Your task to perform on an android device: show emergency info Image 0: 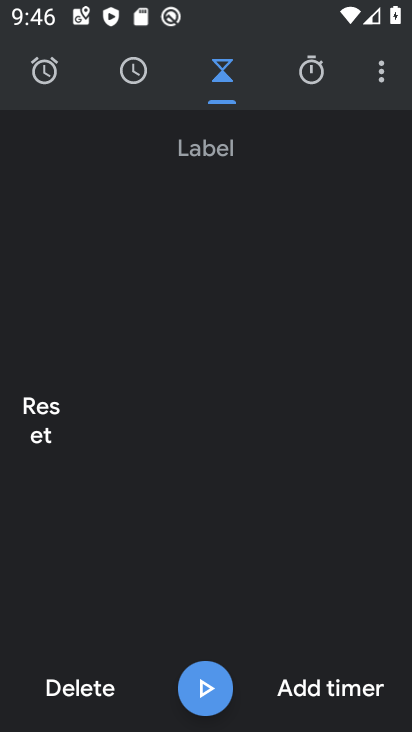
Step 0: press home button
Your task to perform on an android device: show emergency info Image 1: 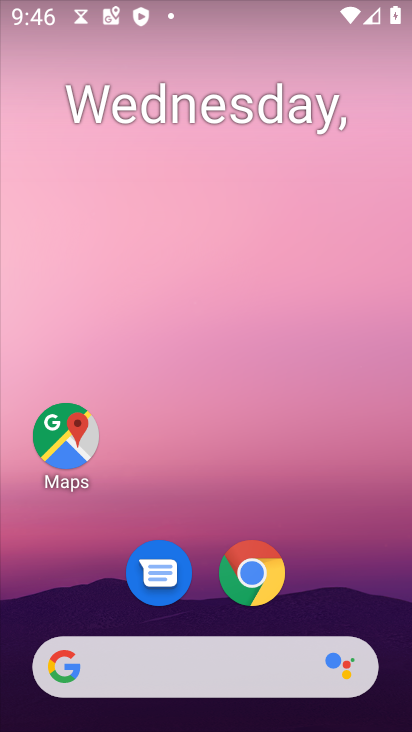
Step 1: drag from (381, 583) to (331, 184)
Your task to perform on an android device: show emergency info Image 2: 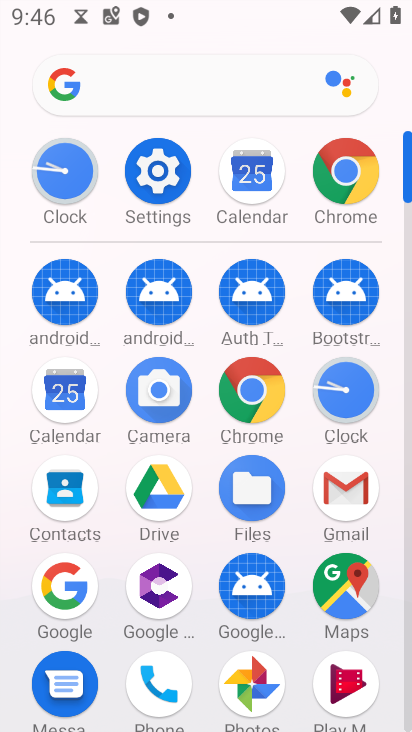
Step 2: click (181, 167)
Your task to perform on an android device: show emergency info Image 3: 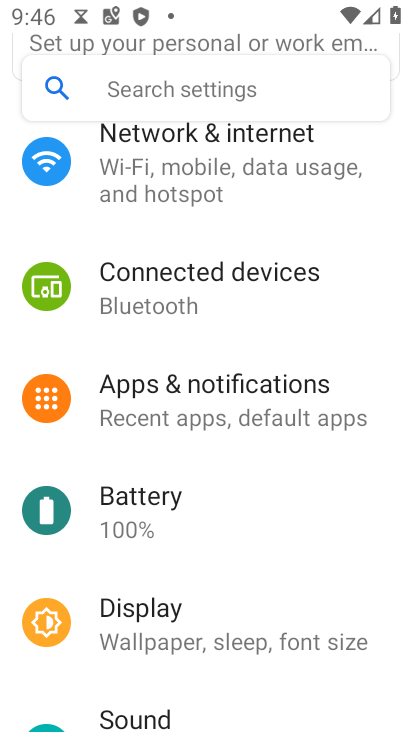
Step 3: drag from (255, 630) to (233, 247)
Your task to perform on an android device: show emergency info Image 4: 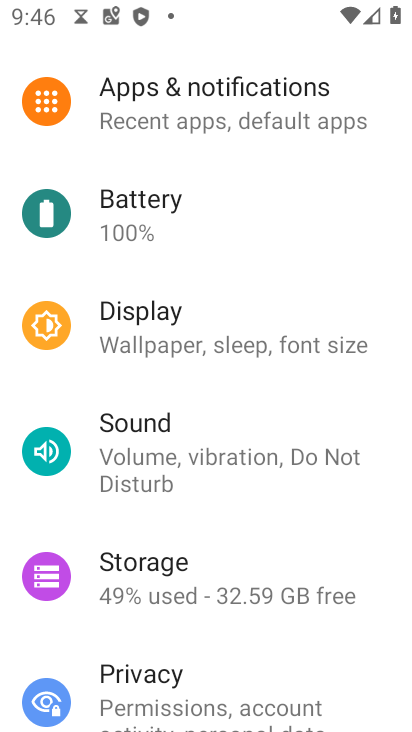
Step 4: drag from (281, 659) to (204, 246)
Your task to perform on an android device: show emergency info Image 5: 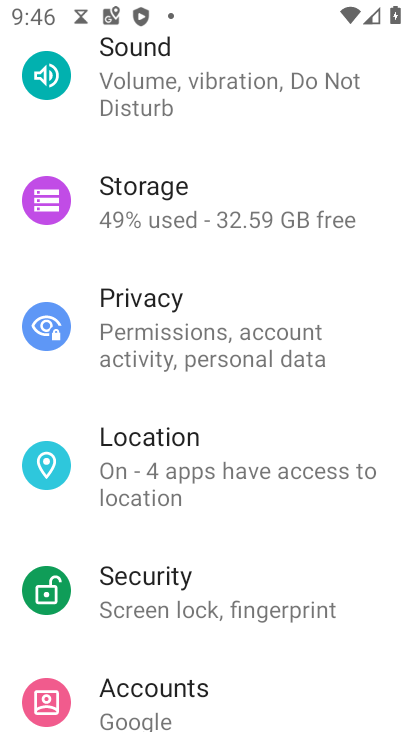
Step 5: drag from (227, 639) to (193, 227)
Your task to perform on an android device: show emergency info Image 6: 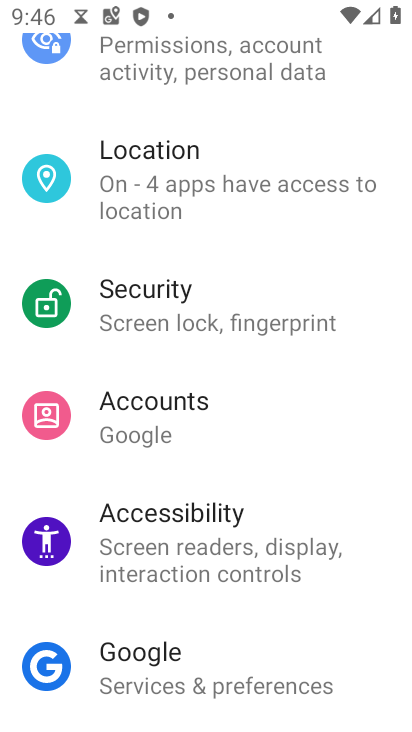
Step 6: drag from (215, 662) to (217, 331)
Your task to perform on an android device: show emergency info Image 7: 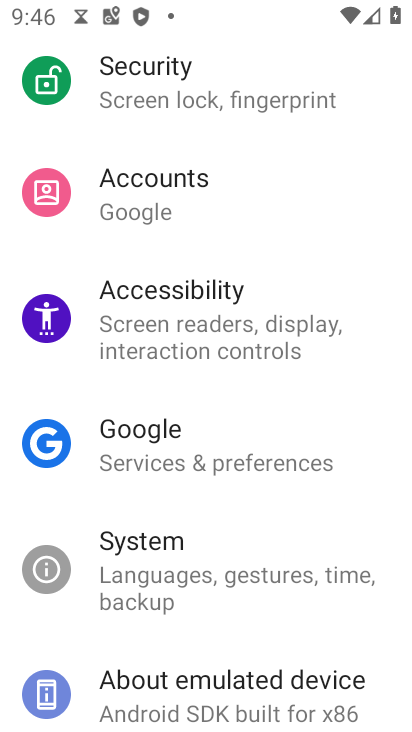
Step 7: click (202, 681)
Your task to perform on an android device: show emergency info Image 8: 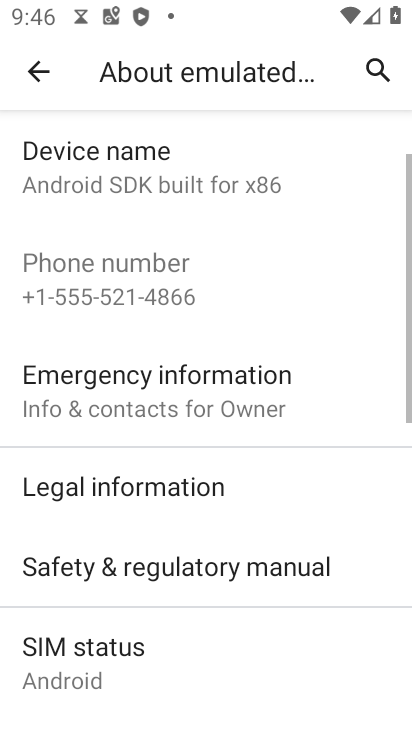
Step 8: click (162, 386)
Your task to perform on an android device: show emergency info Image 9: 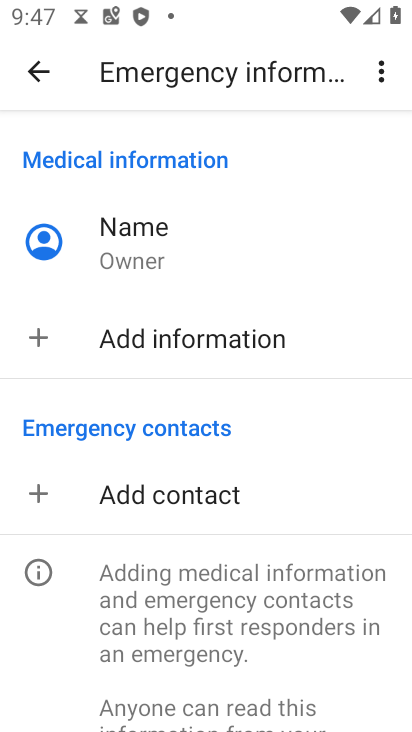
Step 9: task complete